Your task to perform on an android device: toggle location history Image 0: 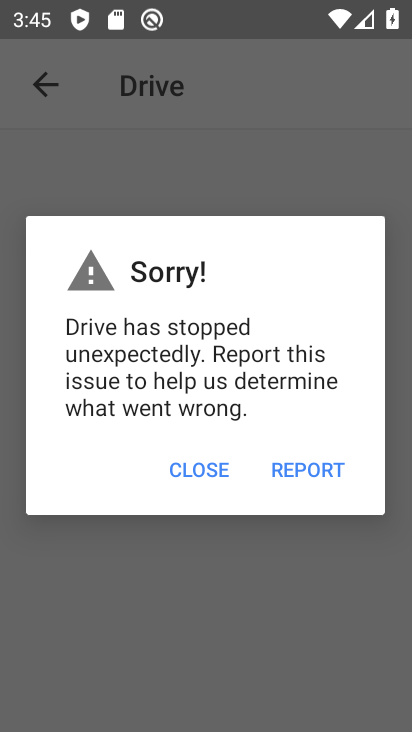
Step 0: press home button
Your task to perform on an android device: toggle location history Image 1: 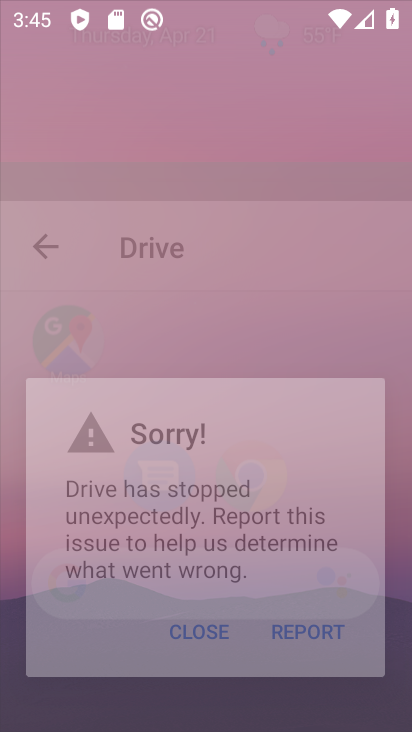
Step 1: press home button
Your task to perform on an android device: toggle location history Image 2: 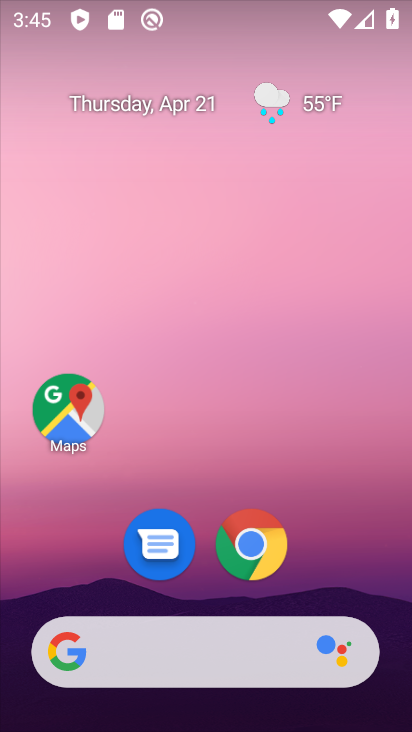
Step 2: drag from (183, 674) to (202, 121)
Your task to perform on an android device: toggle location history Image 3: 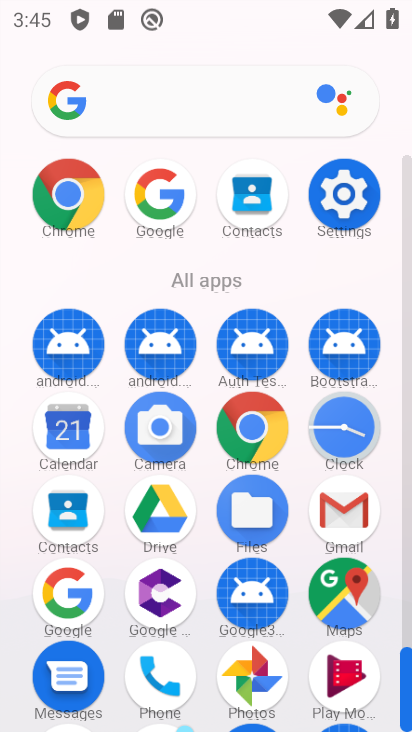
Step 3: click (321, 222)
Your task to perform on an android device: toggle location history Image 4: 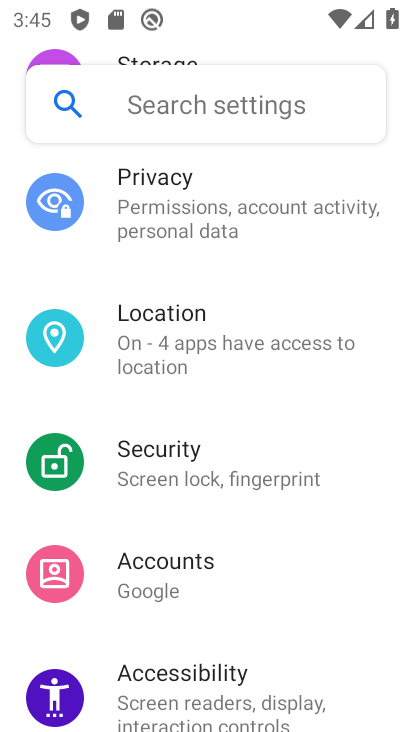
Step 4: click (201, 355)
Your task to perform on an android device: toggle location history Image 5: 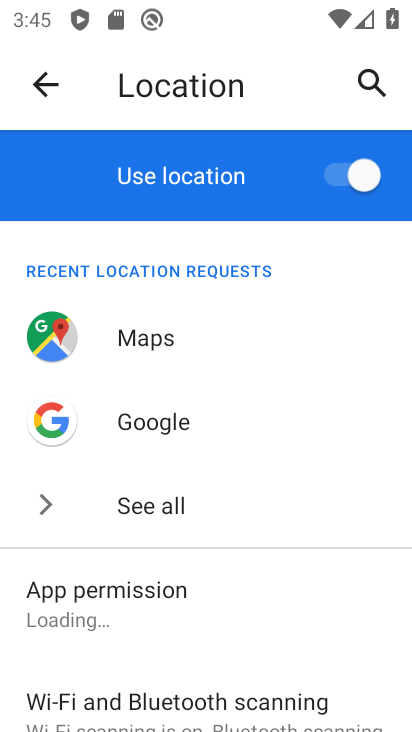
Step 5: drag from (196, 588) to (230, 112)
Your task to perform on an android device: toggle location history Image 6: 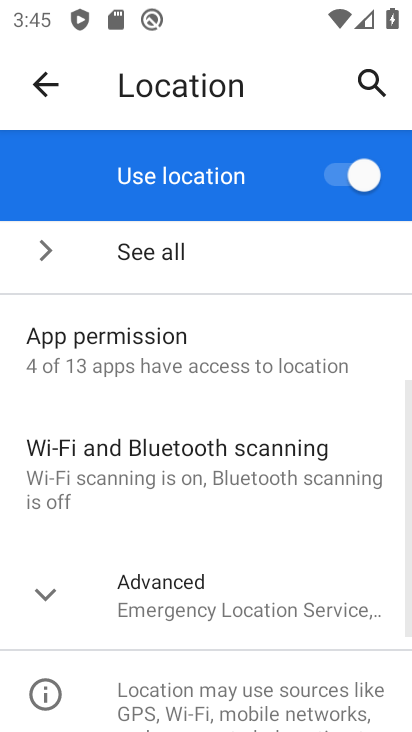
Step 6: click (196, 586)
Your task to perform on an android device: toggle location history Image 7: 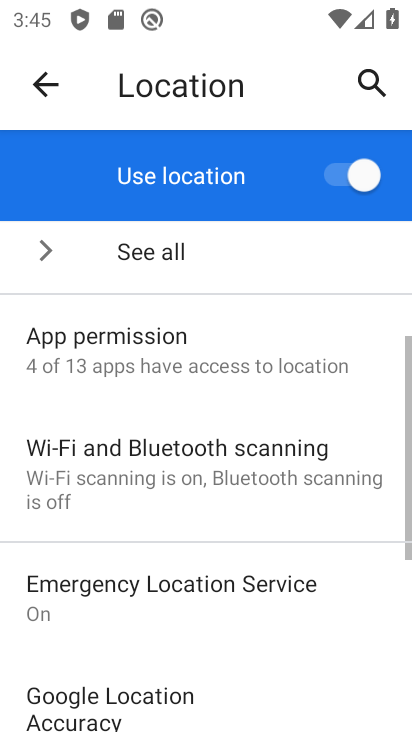
Step 7: drag from (229, 564) to (236, 218)
Your task to perform on an android device: toggle location history Image 8: 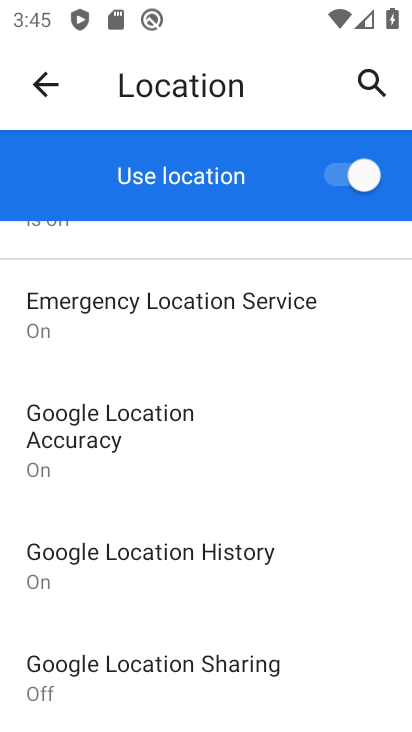
Step 8: click (222, 562)
Your task to perform on an android device: toggle location history Image 9: 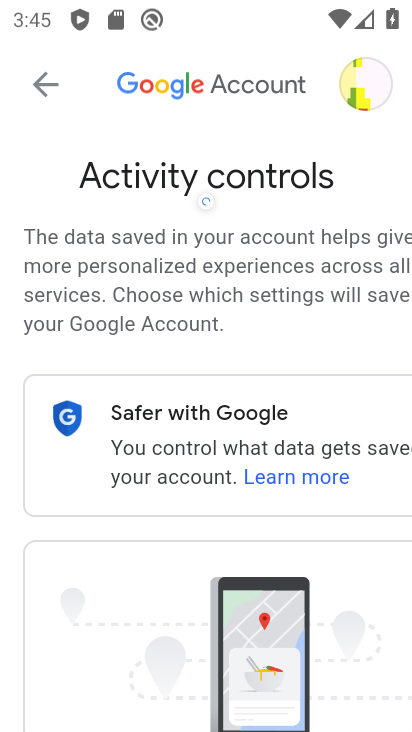
Step 9: drag from (200, 512) to (151, 67)
Your task to perform on an android device: toggle location history Image 10: 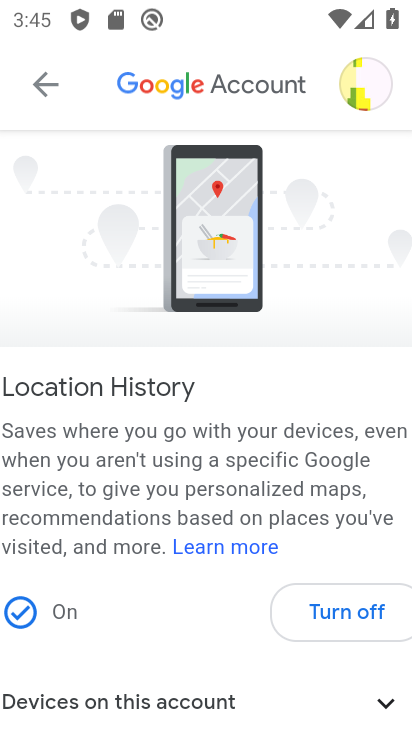
Step 10: click (338, 627)
Your task to perform on an android device: toggle location history Image 11: 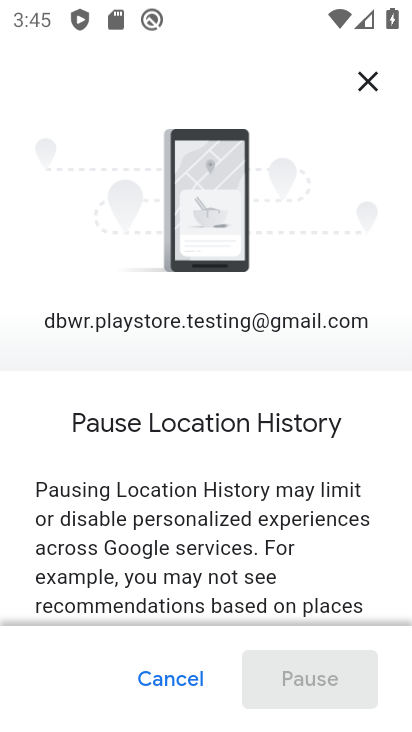
Step 11: drag from (304, 543) to (286, 20)
Your task to perform on an android device: toggle location history Image 12: 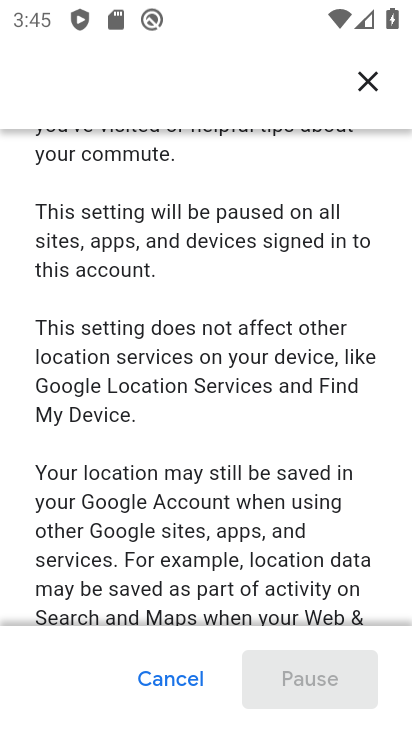
Step 12: drag from (315, 569) to (234, 25)
Your task to perform on an android device: toggle location history Image 13: 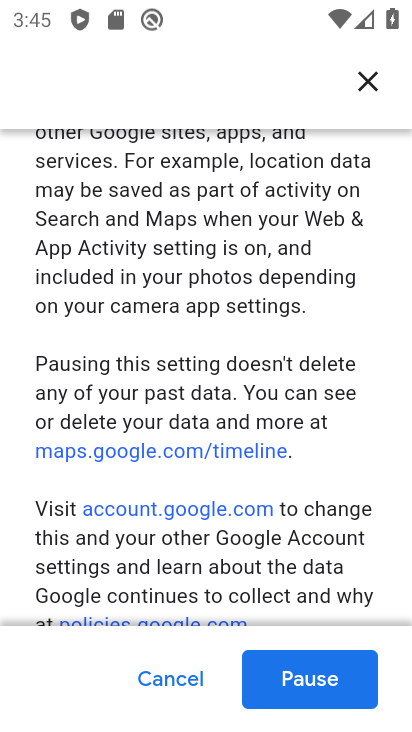
Step 13: click (292, 657)
Your task to perform on an android device: toggle location history Image 14: 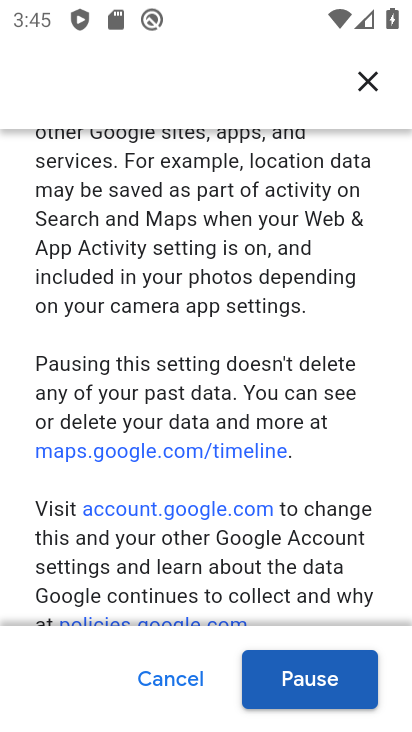
Step 14: click (332, 677)
Your task to perform on an android device: toggle location history Image 15: 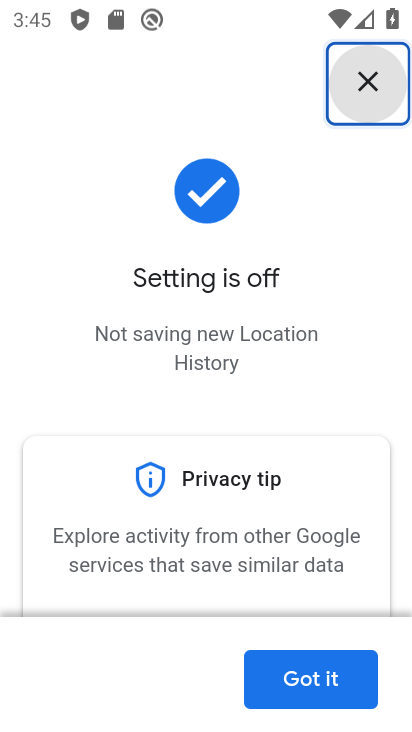
Step 15: click (325, 653)
Your task to perform on an android device: toggle location history Image 16: 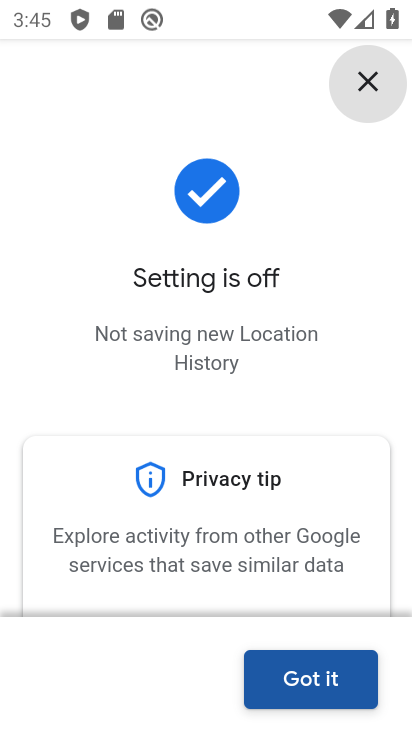
Step 16: task complete